Your task to perform on an android device: turn notification dots on Image 0: 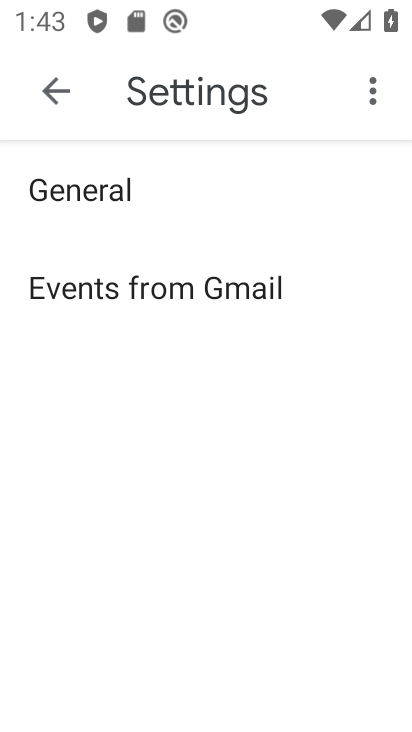
Step 0: click (51, 85)
Your task to perform on an android device: turn notification dots on Image 1: 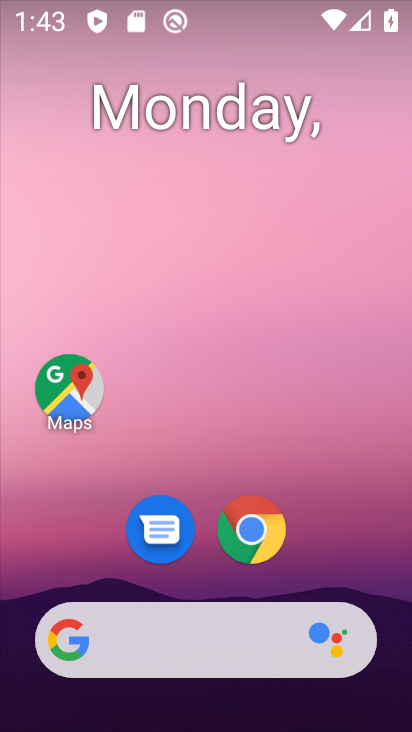
Step 1: drag from (220, 591) to (250, 22)
Your task to perform on an android device: turn notification dots on Image 2: 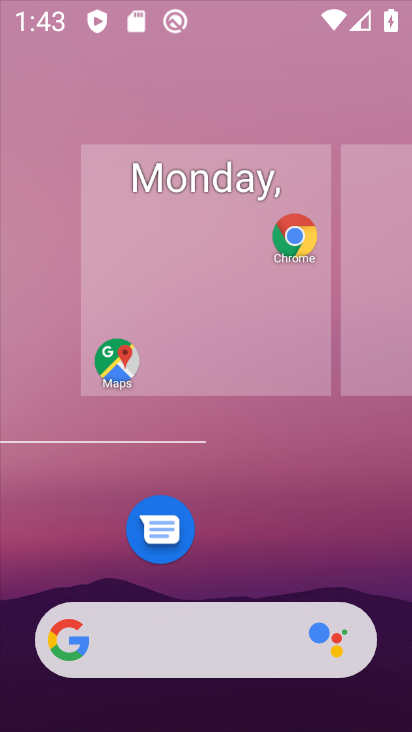
Step 2: drag from (236, 587) to (215, 153)
Your task to perform on an android device: turn notification dots on Image 3: 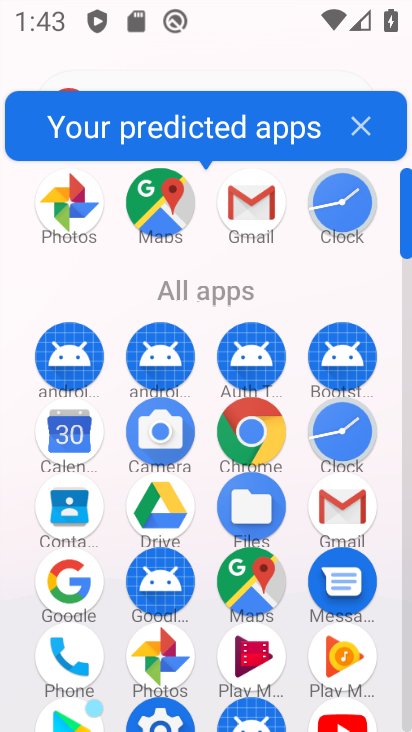
Step 3: drag from (215, 629) to (202, 125)
Your task to perform on an android device: turn notification dots on Image 4: 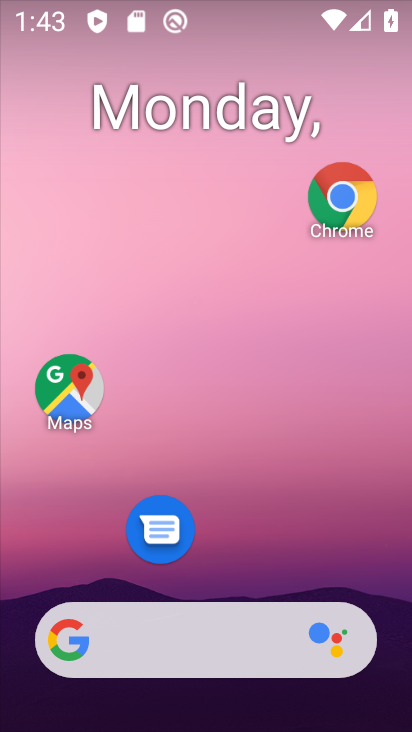
Step 4: drag from (227, 605) to (205, 46)
Your task to perform on an android device: turn notification dots on Image 5: 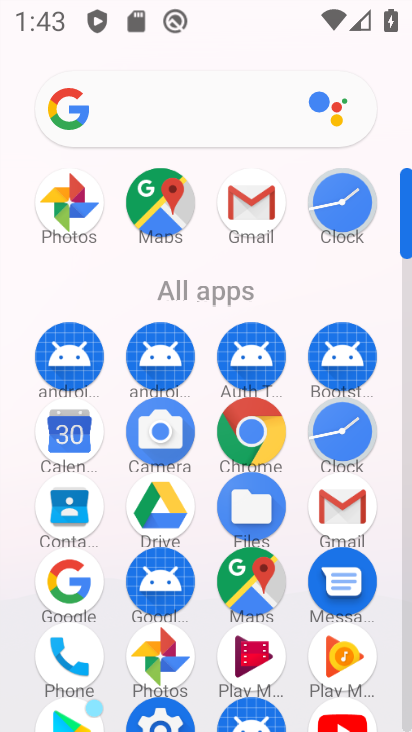
Step 5: drag from (212, 573) to (201, 22)
Your task to perform on an android device: turn notification dots on Image 6: 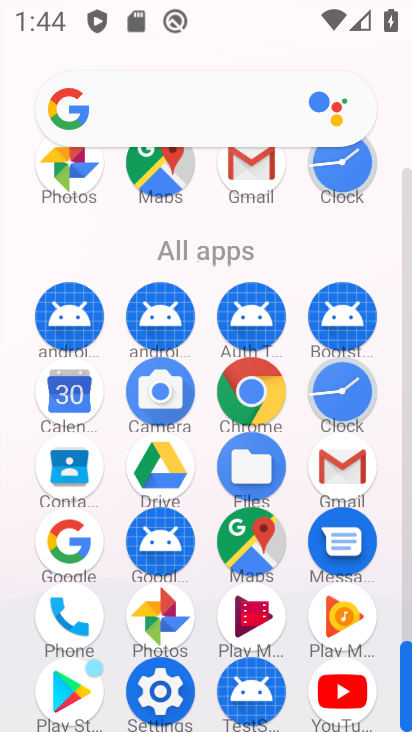
Step 6: click (173, 679)
Your task to perform on an android device: turn notification dots on Image 7: 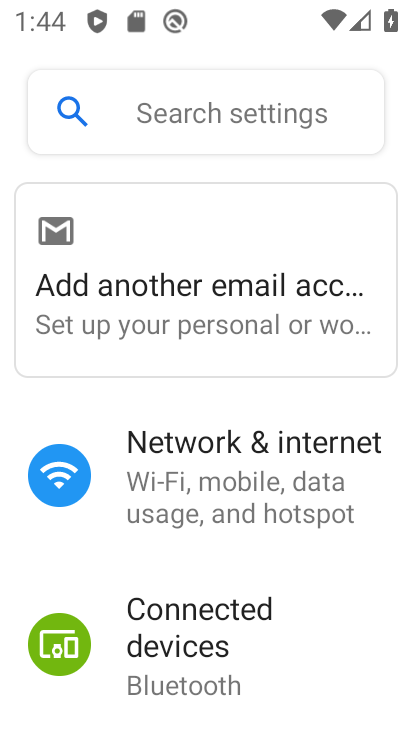
Step 7: drag from (203, 584) to (169, 226)
Your task to perform on an android device: turn notification dots on Image 8: 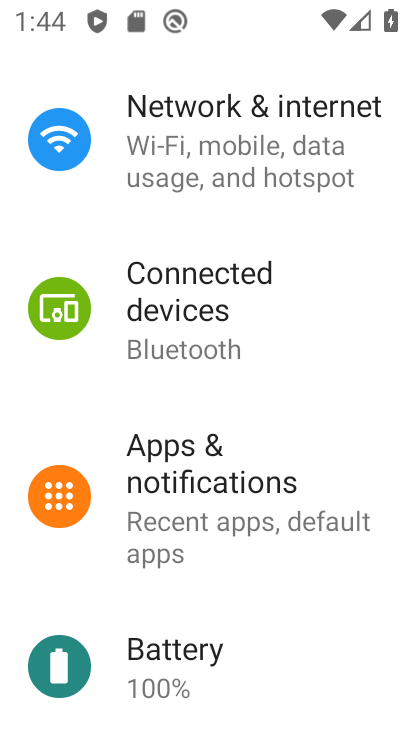
Step 8: click (180, 469)
Your task to perform on an android device: turn notification dots on Image 9: 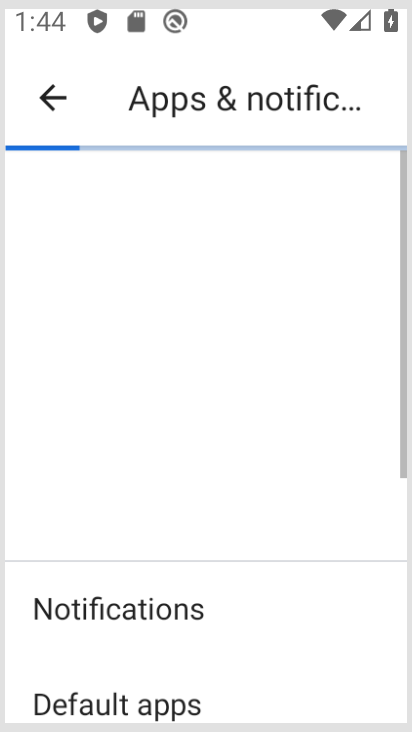
Step 9: click (192, 460)
Your task to perform on an android device: turn notification dots on Image 10: 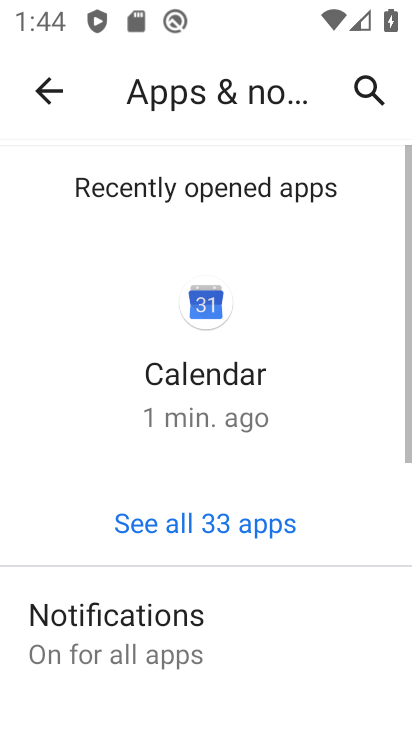
Step 10: click (186, 612)
Your task to perform on an android device: turn notification dots on Image 11: 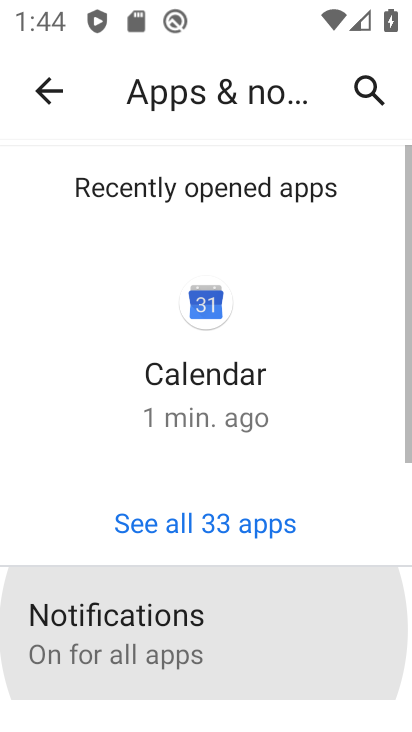
Step 11: drag from (186, 612) to (138, 30)
Your task to perform on an android device: turn notification dots on Image 12: 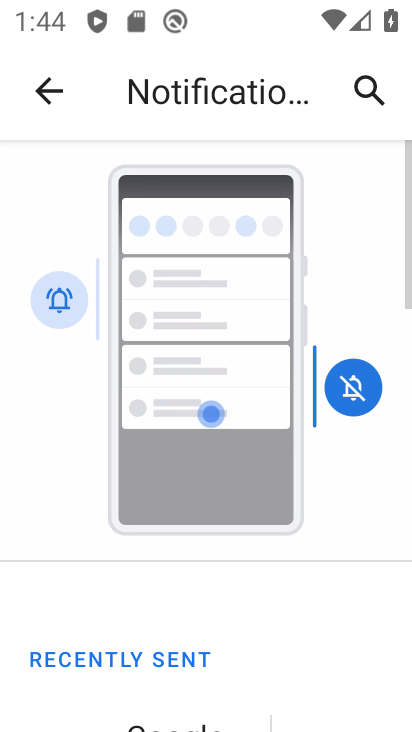
Step 12: drag from (184, 514) to (146, 21)
Your task to perform on an android device: turn notification dots on Image 13: 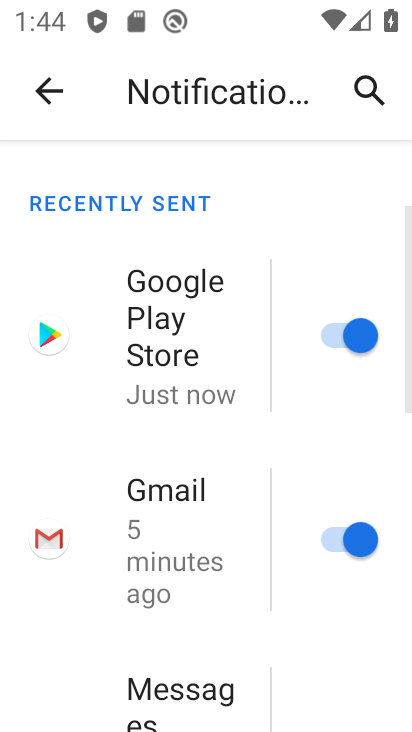
Step 13: drag from (222, 612) to (186, 61)
Your task to perform on an android device: turn notification dots on Image 14: 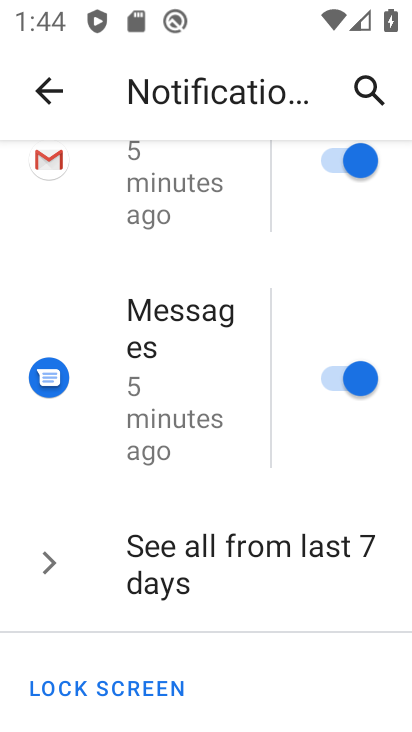
Step 14: drag from (298, 622) to (259, 72)
Your task to perform on an android device: turn notification dots on Image 15: 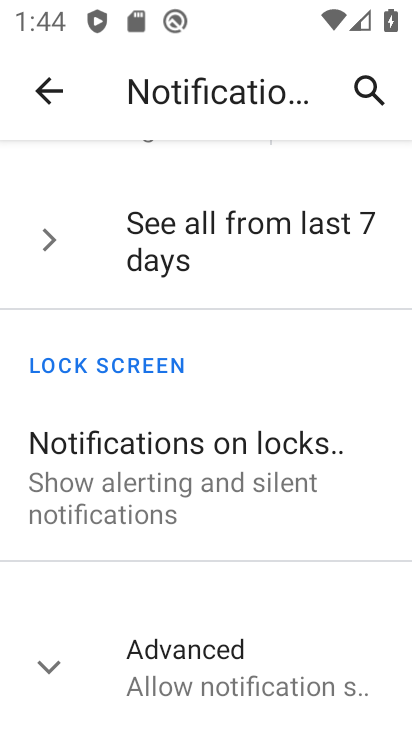
Step 15: click (263, 638)
Your task to perform on an android device: turn notification dots on Image 16: 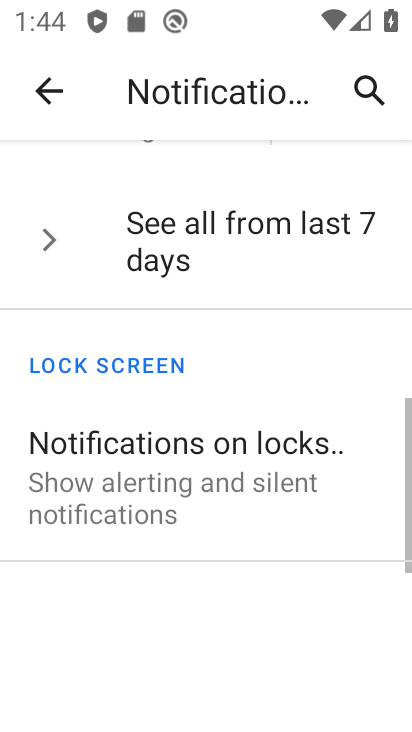
Step 16: task complete